Your task to perform on an android device: delete location history Image 0: 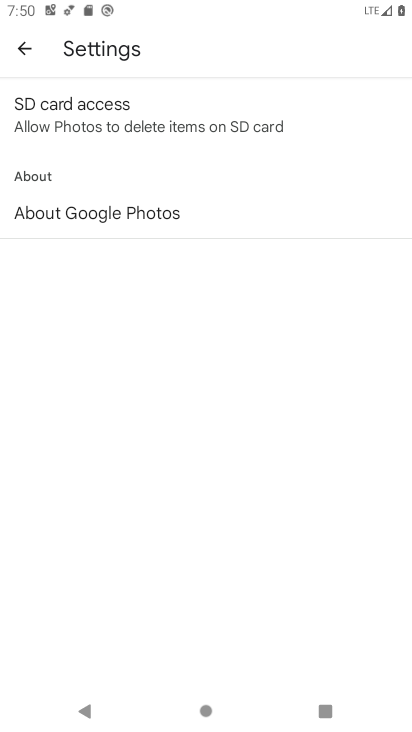
Step 0: press back button
Your task to perform on an android device: delete location history Image 1: 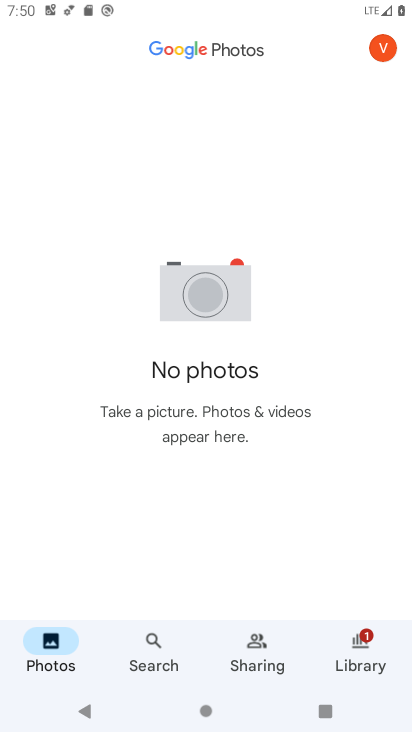
Step 1: drag from (402, 610) to (279, 117)
Your task to perform on an android device: delete location history Image 2: 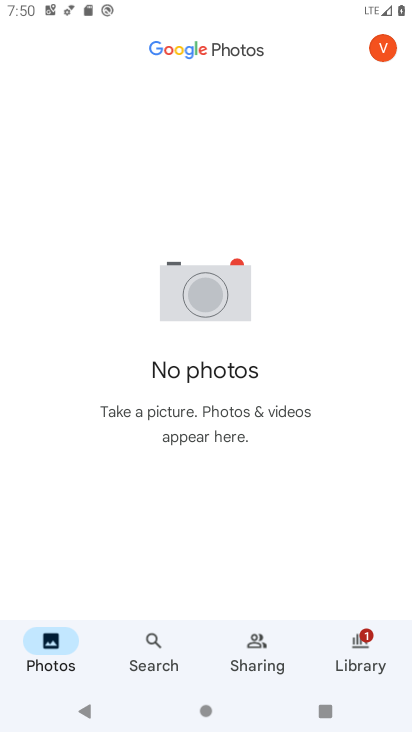
Step 2: press home button
Your task to perform on an android device: delete location history Image 3: 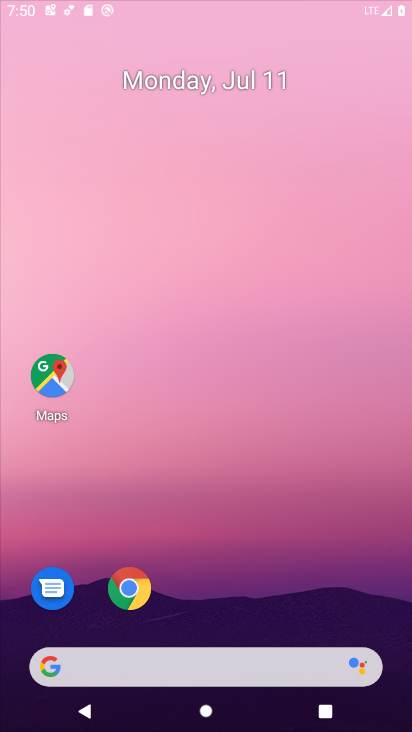
Step 3: drag from (353, 554) to (214, 0)
Your task to perform on an android device: delete location history Image 4: 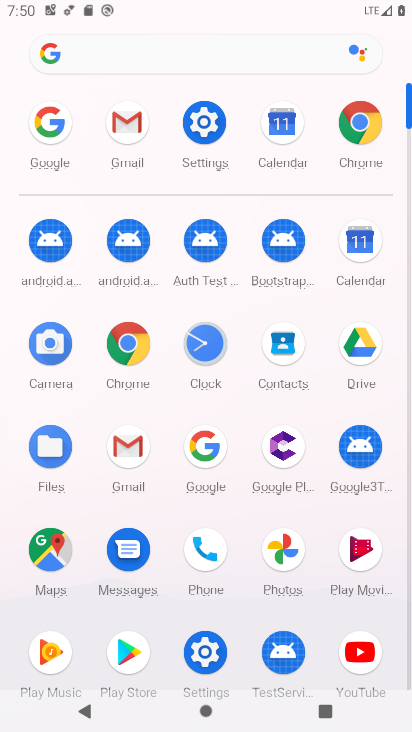
Step 4: click (196, 122)
Your task to perform on an android device: delete location history Image 5: 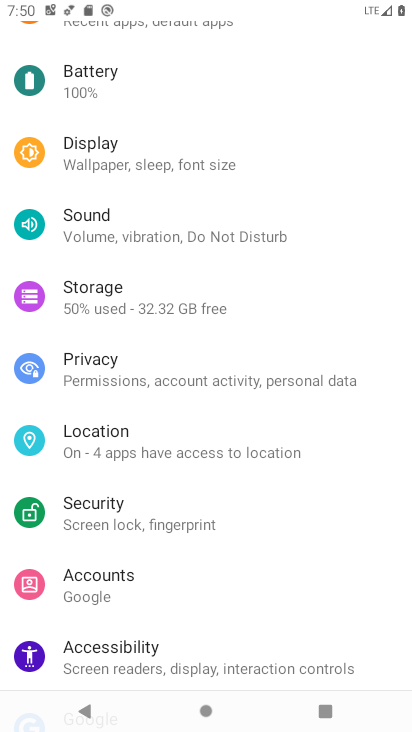
Step 5: click (104, 423)
Your task to perform on an android device: delete location history Image 6: 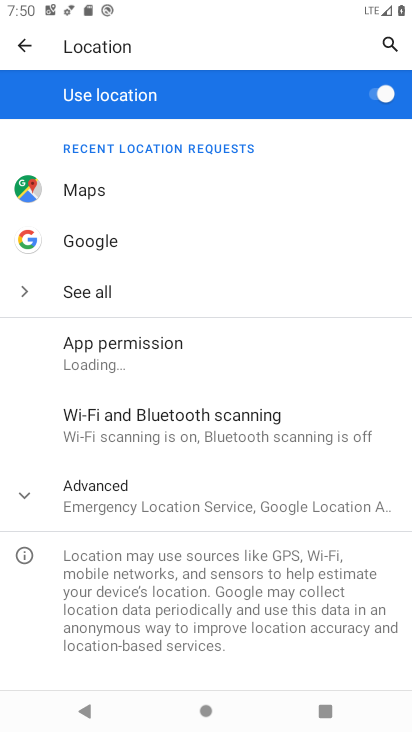
Step 6: click (58, 485)
Your task to perform on an android device: delete location history Image 7: 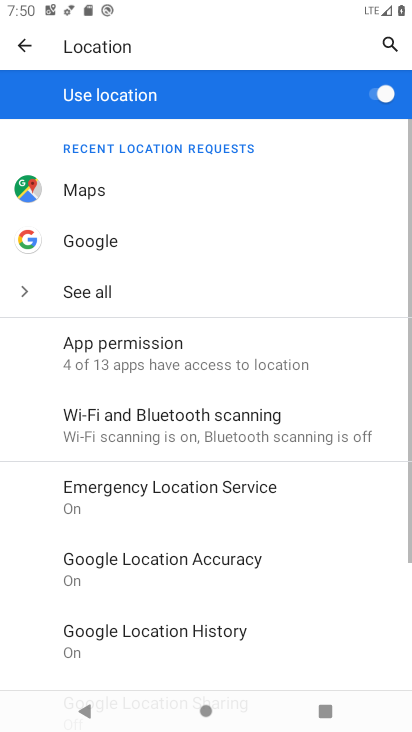
Step 7: click (222, 637)
Your task to perform on an android device: delete location history Image 8: 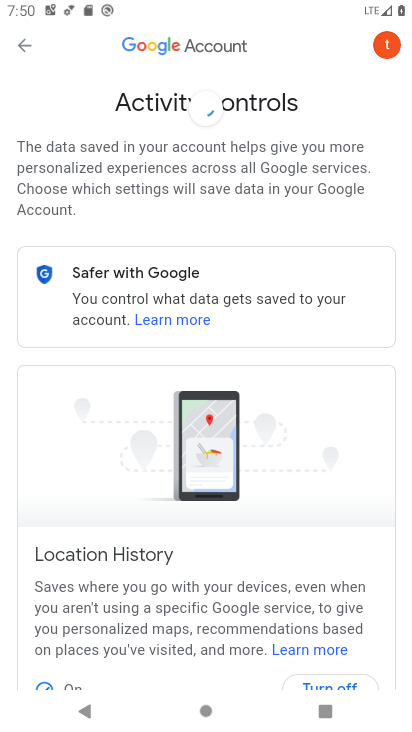
Step 8: drag from (161, 608) to (90, 126)
Your task to perform on an android device: delete location history Image 9: 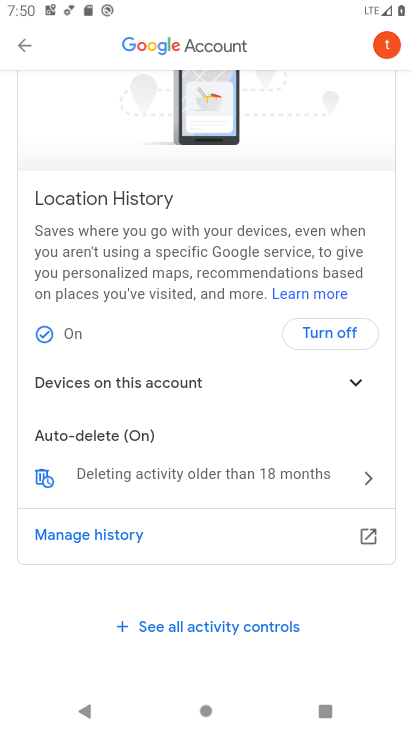
Step 9: click (206, 481)
Your task to perform on an android device: delete location history Image 10: 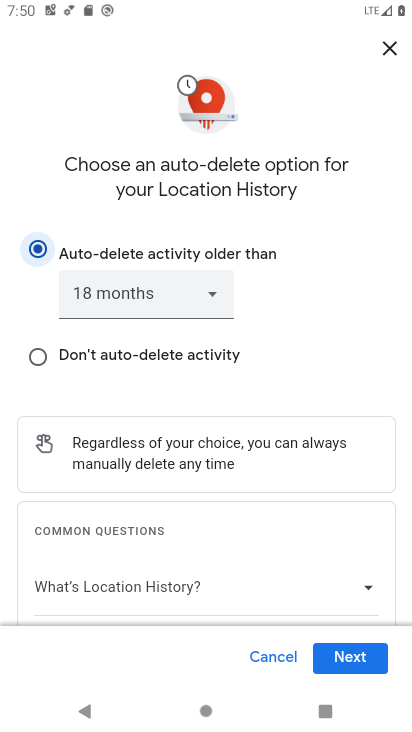
Step 10: click (352, 657)
Your task to perform on an android device: delete location history Image 11: 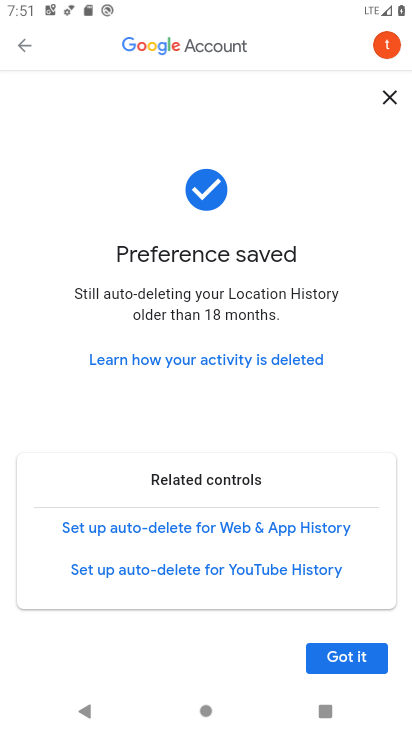
Step 11: click (356, 659)
Your task to perform on an android device: delete location history Image 12: 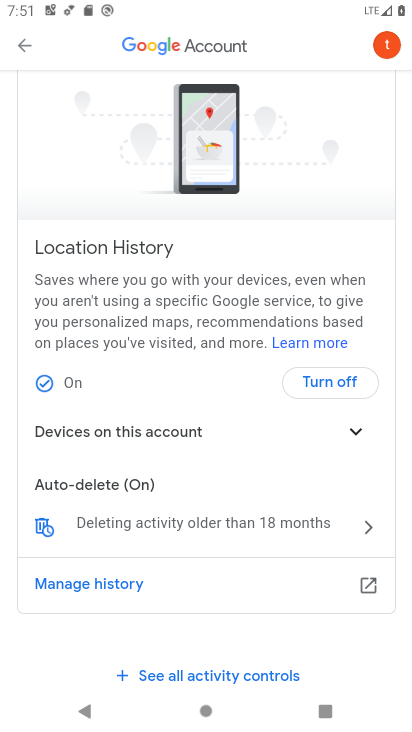
Step 12: task complete